Your task to perform on an android device: Show me the alarms in the clock app Image 0: 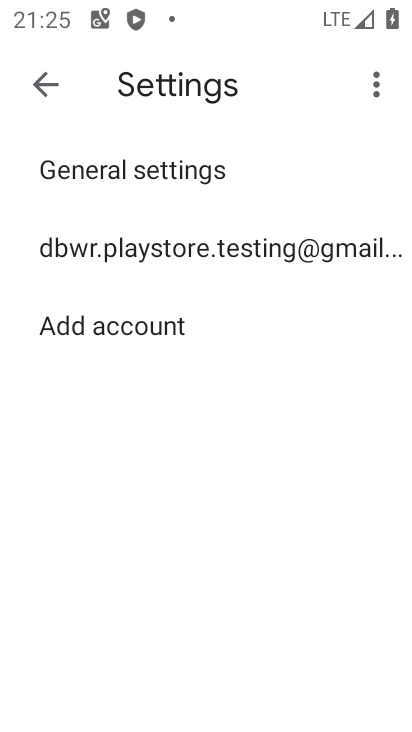
Step 0: press home button
Your task to perform on an android device: Show me the alarms in the clock app Image 1: 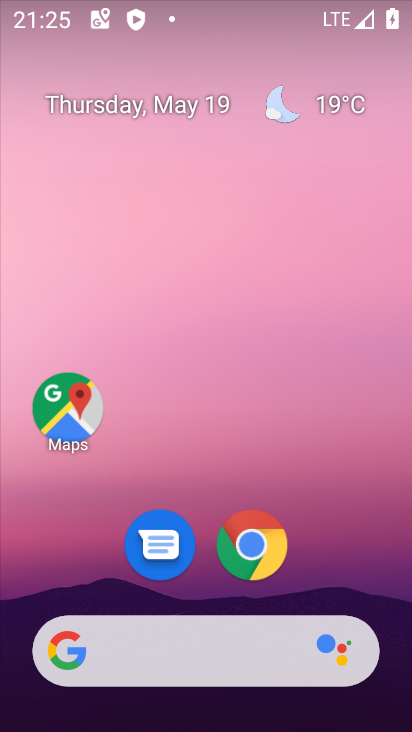
Step 1: drag from (358, 566) to (262, 38)
Your task to perform on an android device: Show me the alarms in the clock app Image 2: 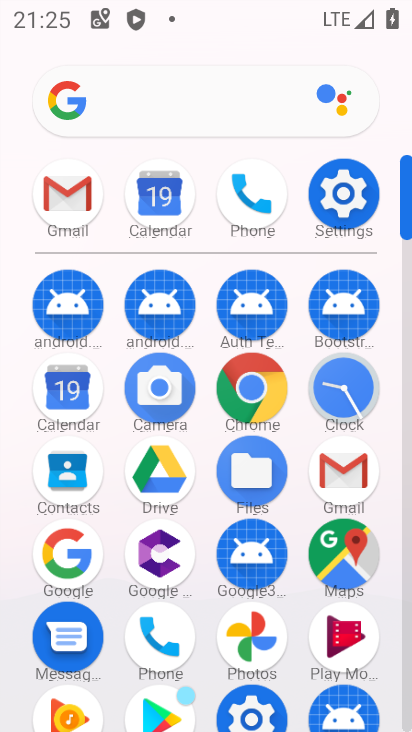
Step 2: click (337, 375)
Your task to perform on an android device: Show me the alarms in the clock app Image 3: 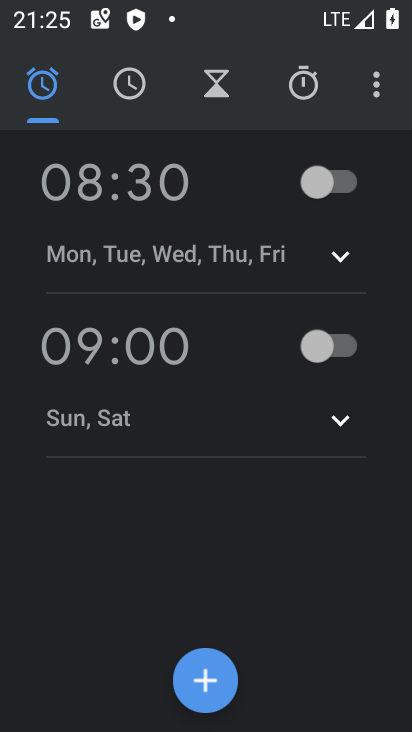
Step 3: task complete